Your task to perform on an android device: Go to accessibility settings Image 0: 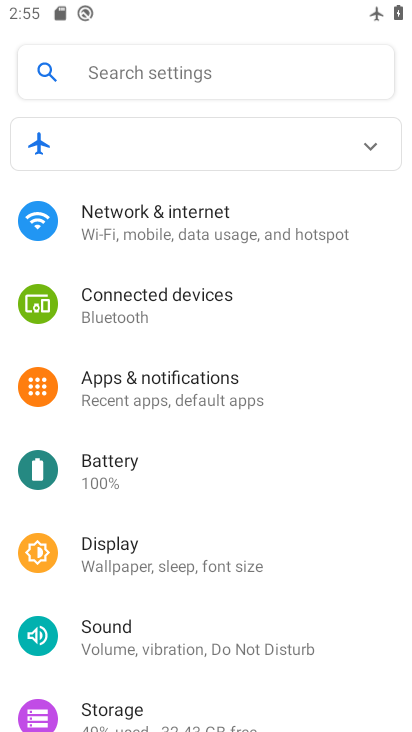
Step 0: drag from (279, 615) to (223, 124)
Your task to perform on an android device: Go to accessibility settings Image 1: 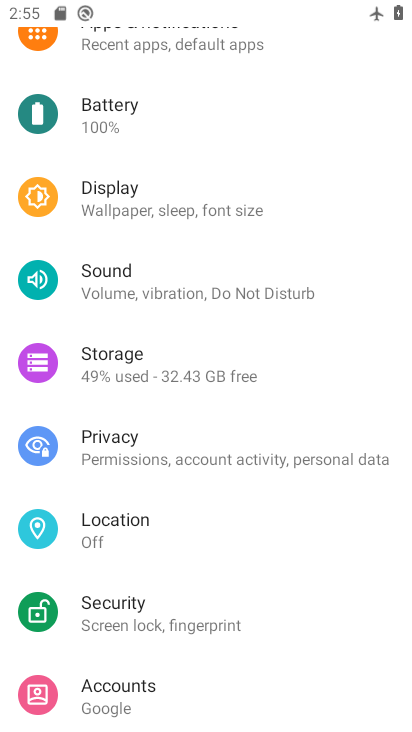
Step 1: drag from (246, 515) to (199, 110)
Your task to perform on an android device: Go to accessibility settings Image 2: 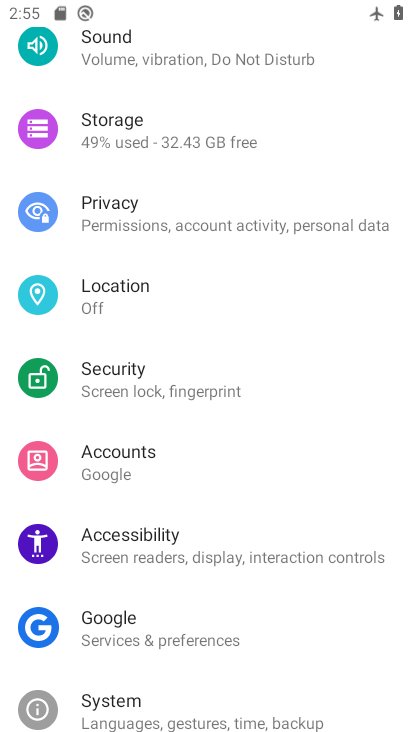
Step 2: click (205, 541)
Your task to perform on an android device: Go to accessibility settings Image 3: 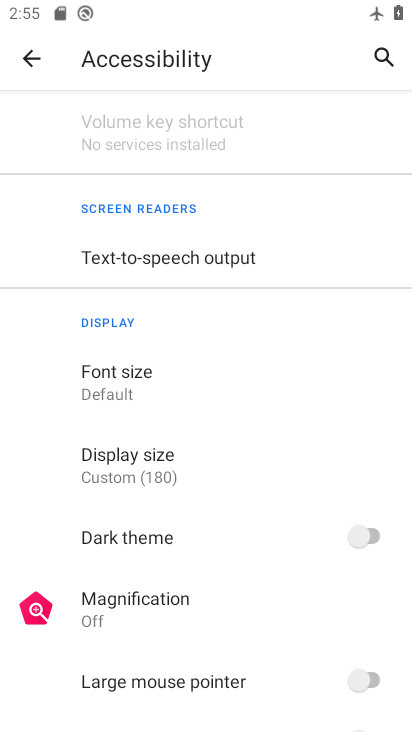
Step 3: task complete